Your task to perform on an android device: Open Yahoo.com Image 0: 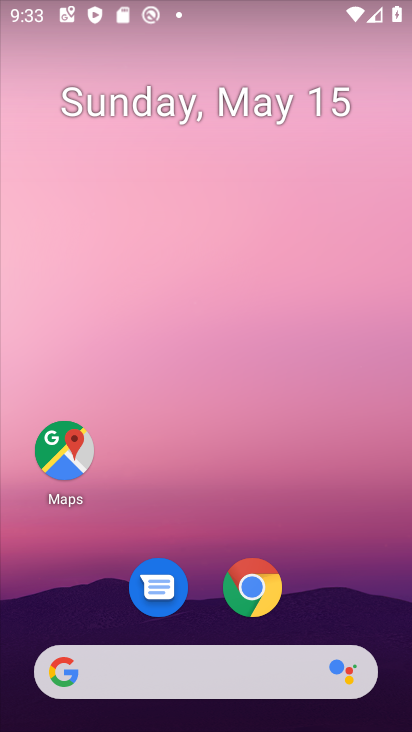
Step 0: drag from (379, 637) to (282, 35)
Your task to perform on an android device: Open Yahoo.com Image 1: 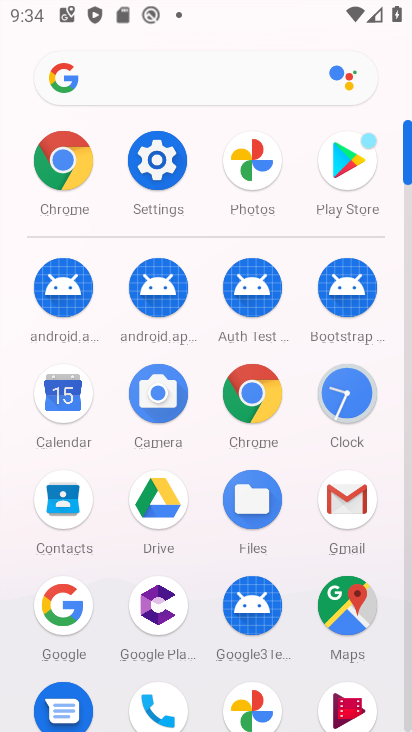
Step 1: click (252, 395)
Your task to perform on an android device: Open Yahoo.com Image 2: 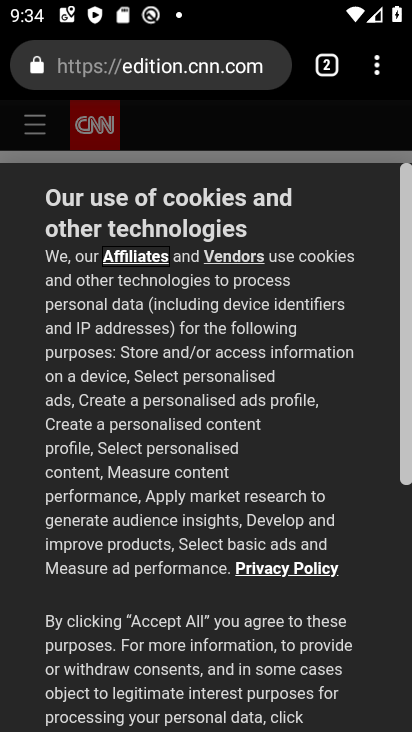
Step 2: press back button
Your task to perform on an android device: Open Yahoo.com Image 3: 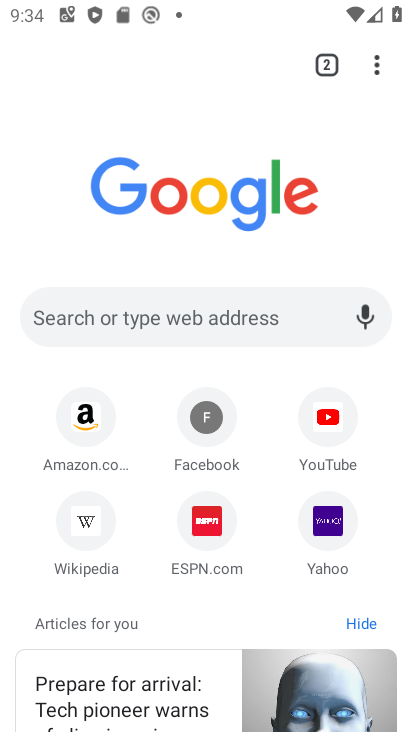
Step 3: click (343, 538)
Your task to perform on an android device: Open Yahoo.com Image 4: 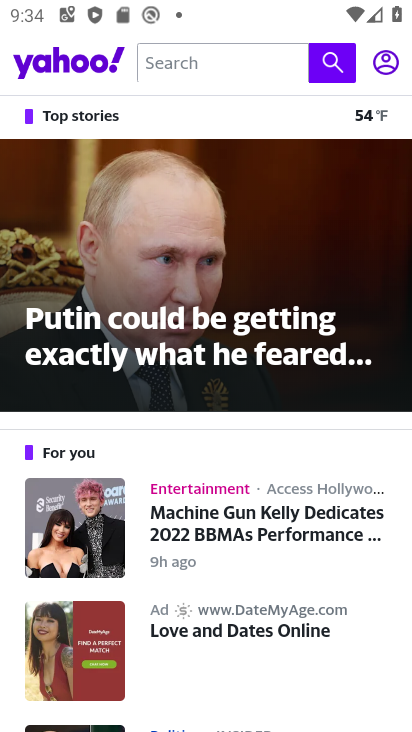
Step 4: task complete